Your task to perform on an android device: check out phone information Image 0: 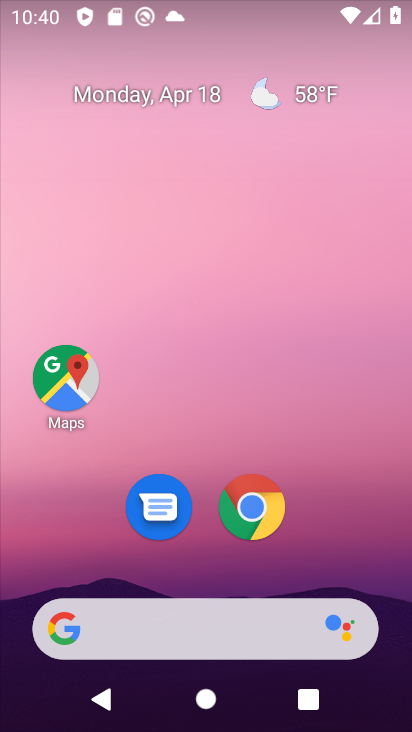
Step 0: drag from (283, 18) to (359, 720)
Your task to perform on an android device: check out phone information Image 1: 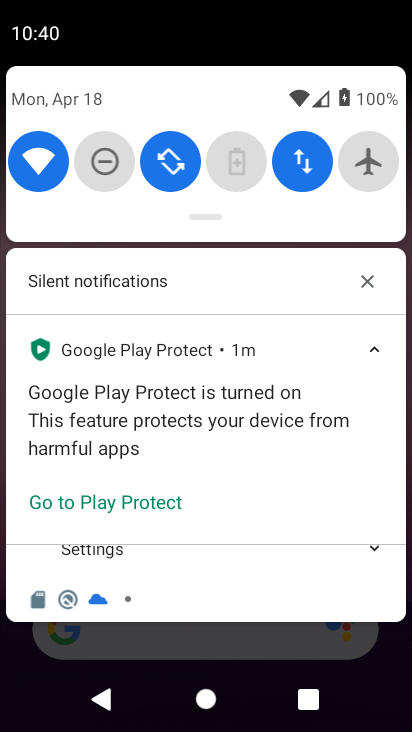
Step 1: drag from (209, 111) to (213, 595)
Your task to perform on an android device: check out phone information Image 2: 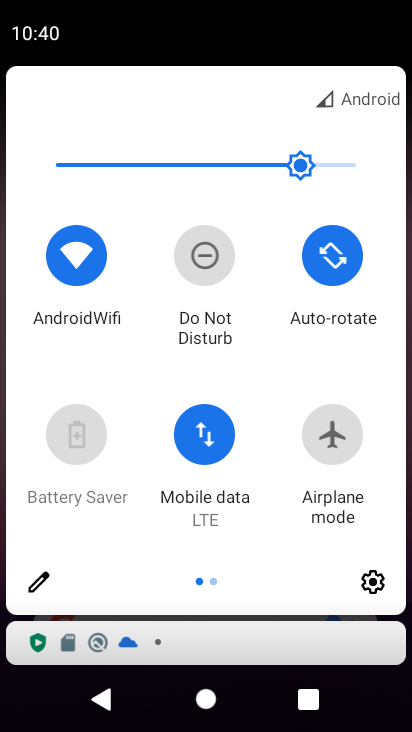
Step 2: click (374, 575)
Your task to perform on an android device: check out phone information Image 3: 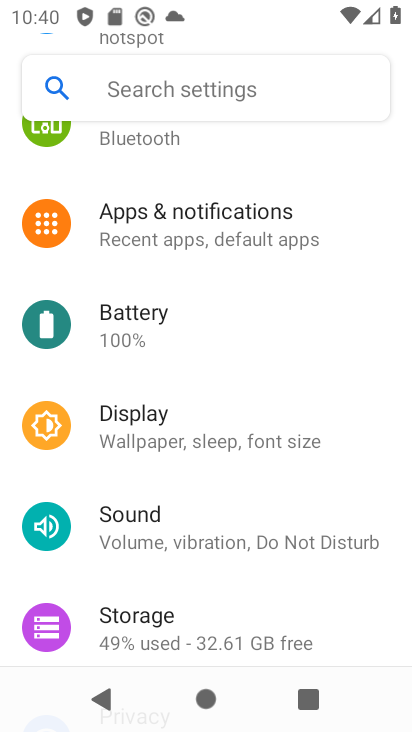
Step 3: drag from (195, 593) to (264, 4)
Your task to perform on an android device: check out phone information Image 4: 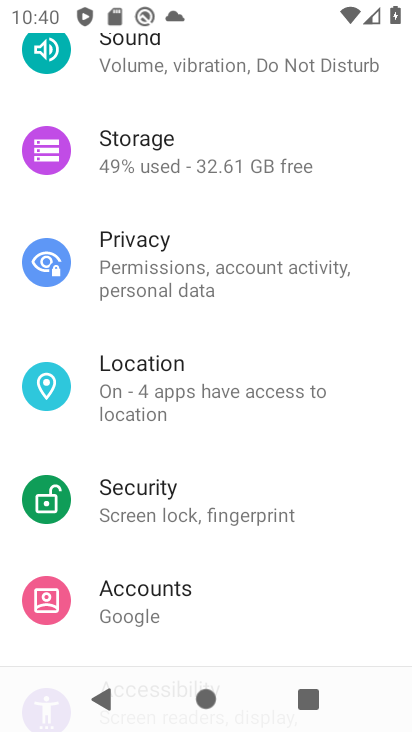
Step 4: drag from (123, 628) to (227, 24)
Your task to perform on an android device: check out phone information Image 5: 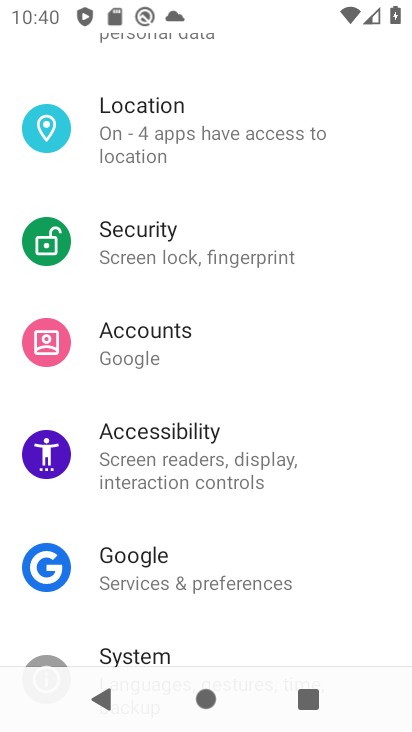
Step 5: drag from (141, 550) to (215, 43)
Your task to perform on an android device: check out phone information Image 6: 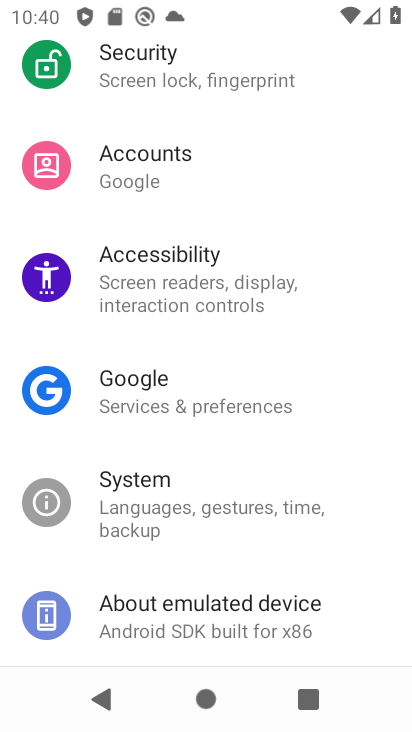
Step 6: drag from (90, 650) to (213, 124)
Your task to perform on an android device: check out phone information Image 7: 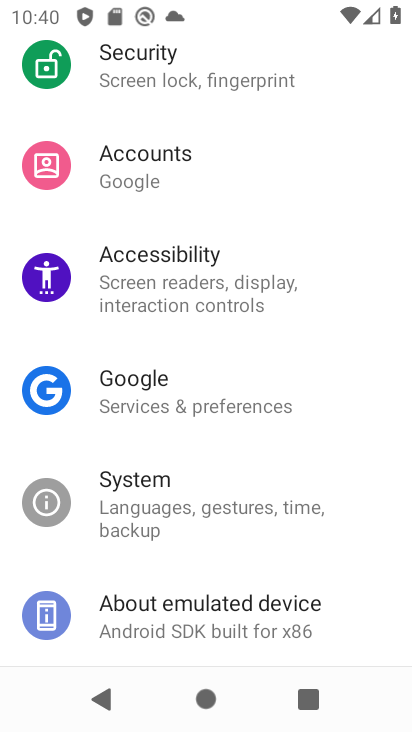
Step 7: click (177, 598)
Your task to perform on an android device: check out phone information Image 8: 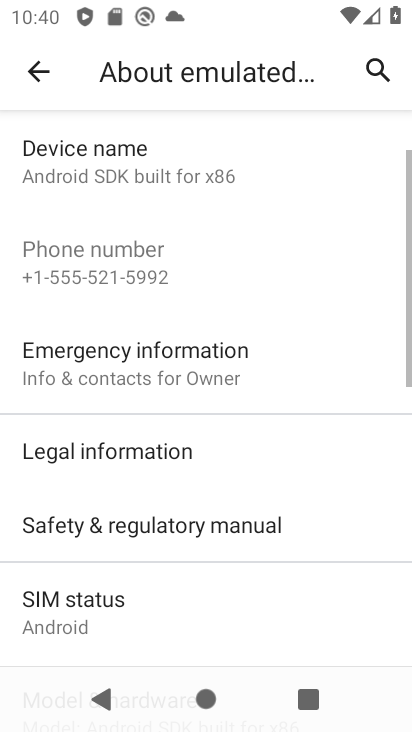
Step 8: task complete